Your task to perform on an android device: set an alarm Image 0: 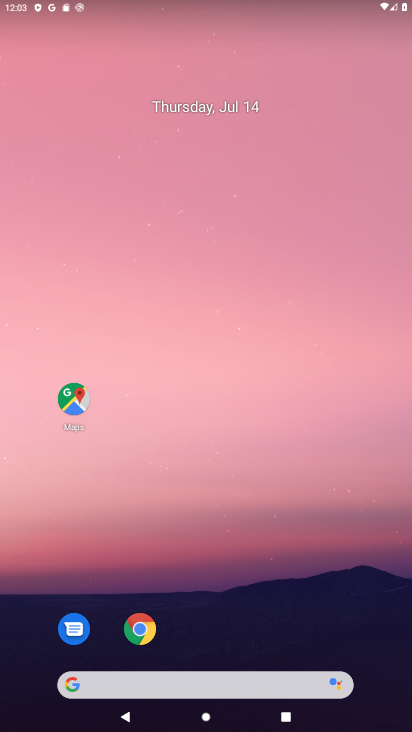
Step 0: drag from (207, 683) to (231, 103)
Your task to perform on an android device: set an alarm Image 1: 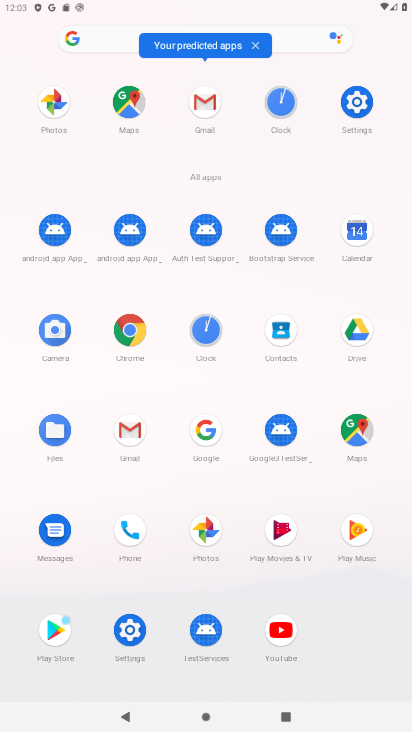
Step 1: click (279, 104)
Your task to perform on an android device: set an alarm Image 2: 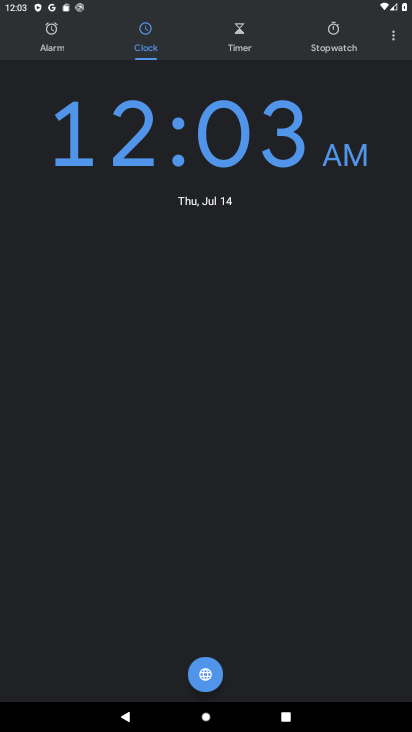
Step 2: click (51, 36)
Your task to perform on an android device: set an alarm Image 3: 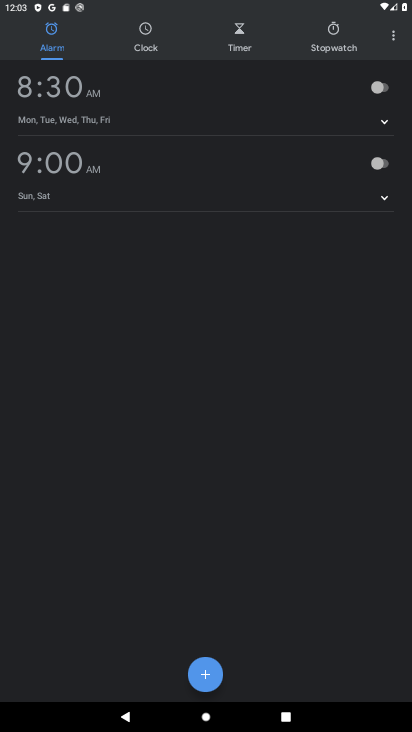
Step 3: click (204, 673)
Your task to perform on an android device: set an alarm Image 4: 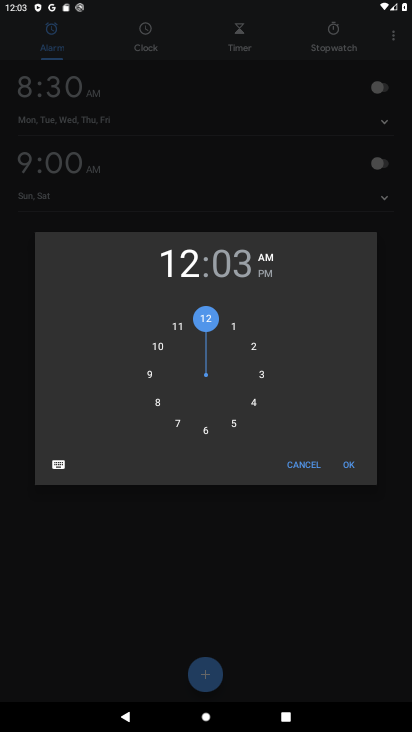
Step 4: click (155, 377)
Your task to perform on an android device: set an alarm Image 5: 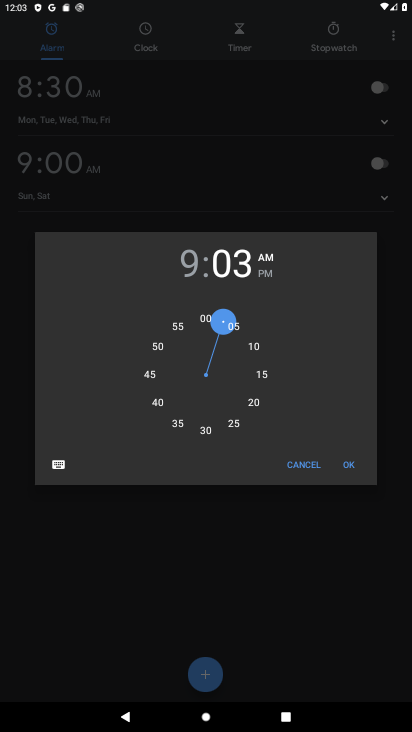
Step 5: click (261, 381)
Your task to perform on an android device: set an alarm Image 6: 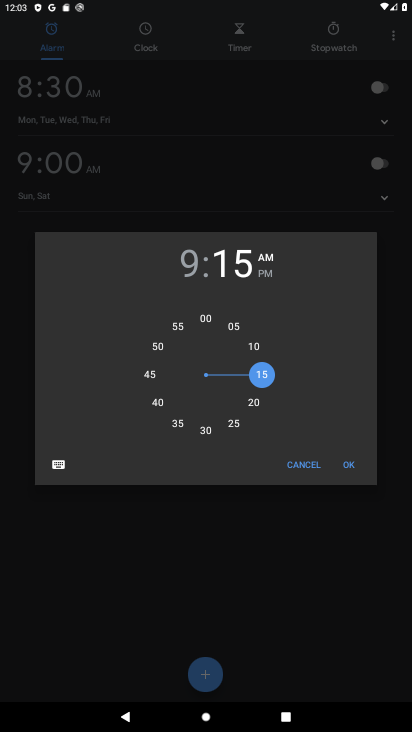
Step 6: click (350, 469)
Your task to perform on an android device: set an alarm Image 7: 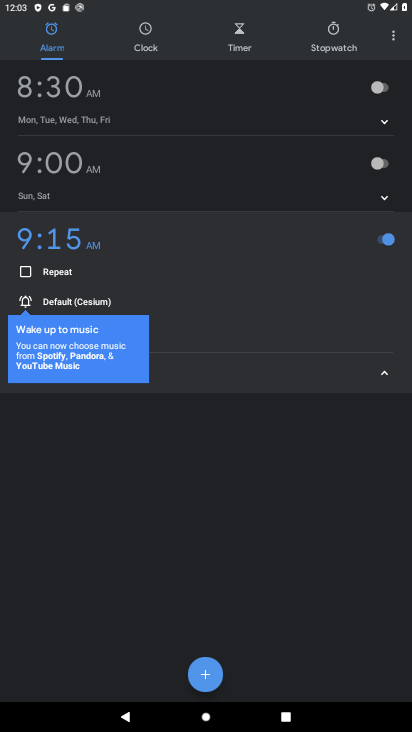
Step 7: task complete